Your task to perform on an android device: Turn off the flashlight Image 0: 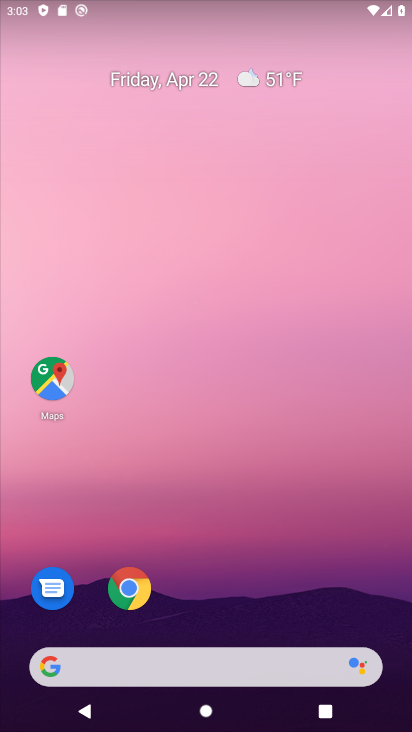
Step 0: drag from (244, 4) to (255, 437)
Your task to perform on an android device: Turn off the flashlight Image 1: 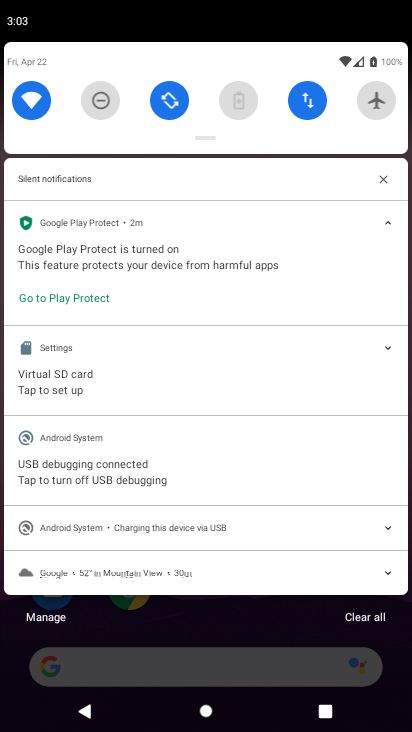
Step 1: drag from (274, 71) to (272, 386)
Your task to perform on an android device: Turn off the flashlight Image 2: 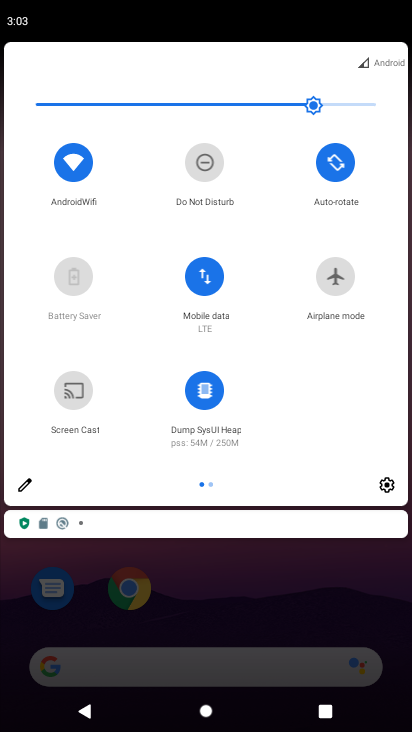
Step 2: click (24, 481)
Your task to perform on an android device: Turn off the flashlight Image 3: 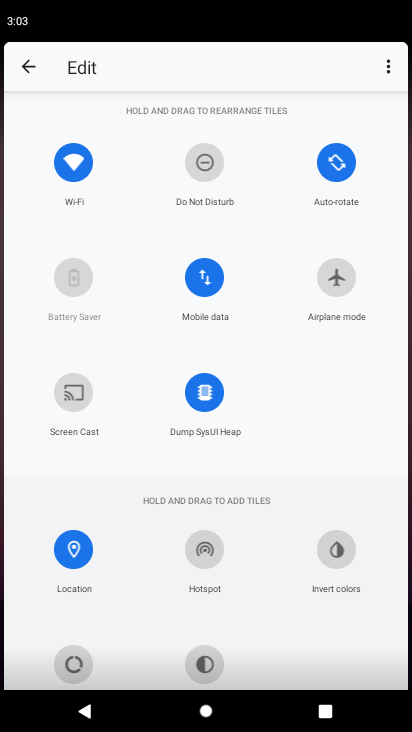
Step 3: task complete